Your task to perform on an android device: check storage Image 0: 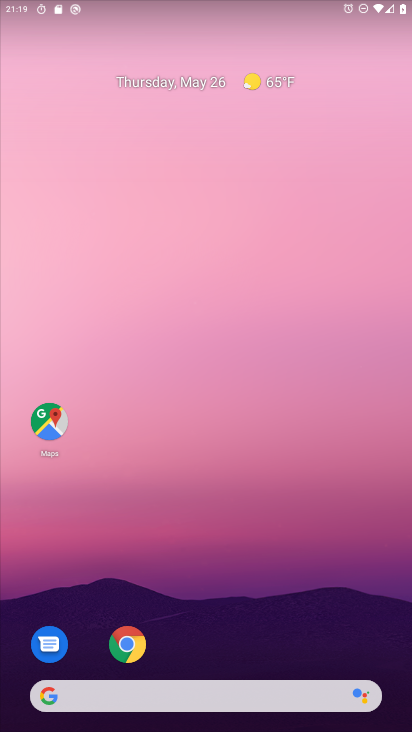
Step 0: drag from (154, 381) to (159, 139)
Your task to perform on an android device: check storage Image 1: 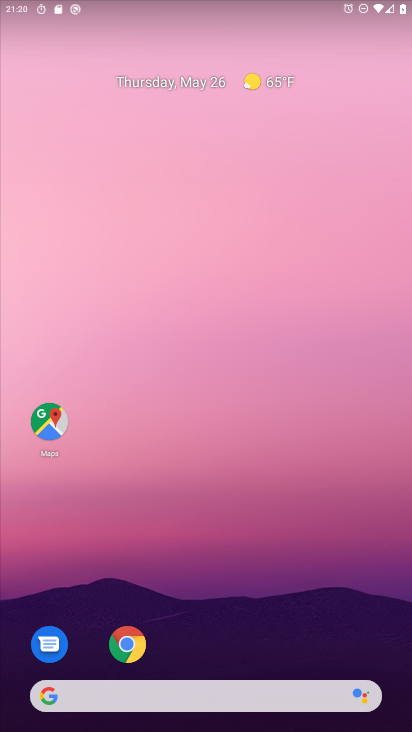
Step 1: drag from (197, 603) to (207, 273)
Your task to perform on an android device: check storage Image 2: 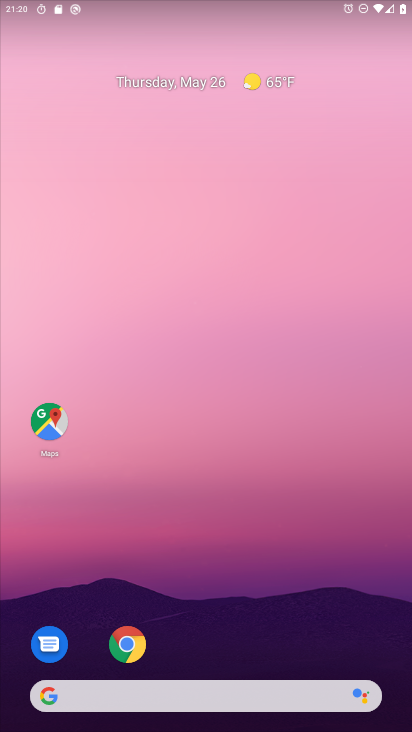
Step 2: drag from (217, 626) to (218, 126)
Your task to perform on an android device: check storage Image 3: 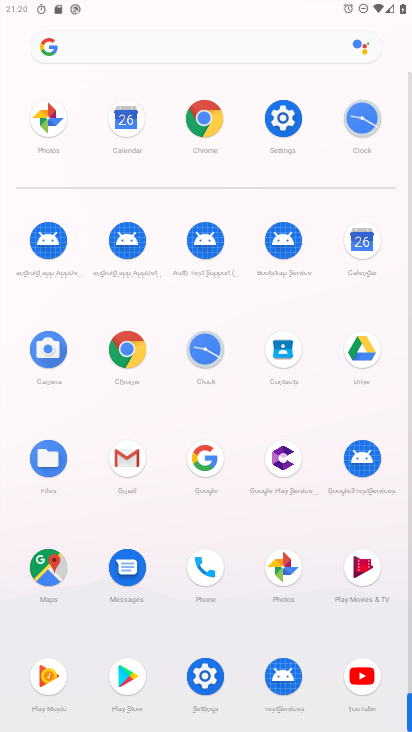
Step 3: drag from (237, 637) to (272, 178)
Your task to perform on an android device: check storage Image 4: 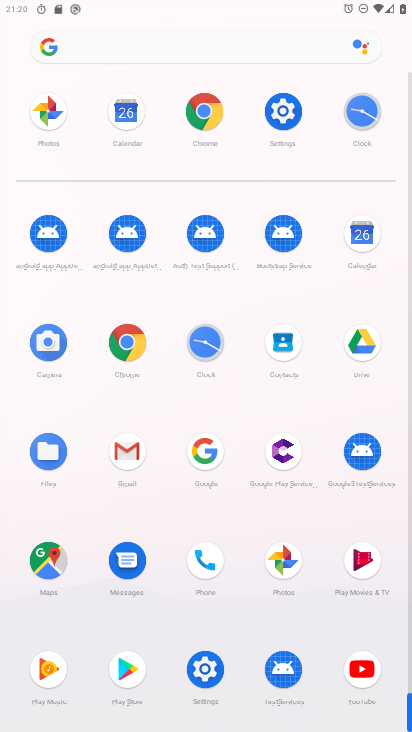
Step 4: drag from (242, 629) to (235, 288)
Your task to perform on an android device: check storage Image 5: 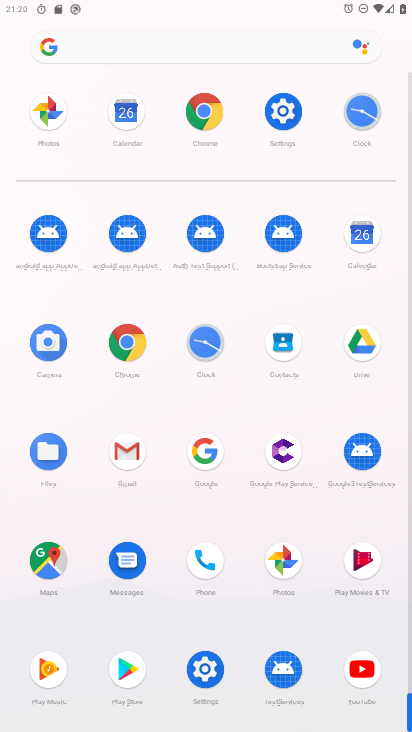
Step 5: click (276, 118)
Your task to perform on an android device: check storage Image 6: 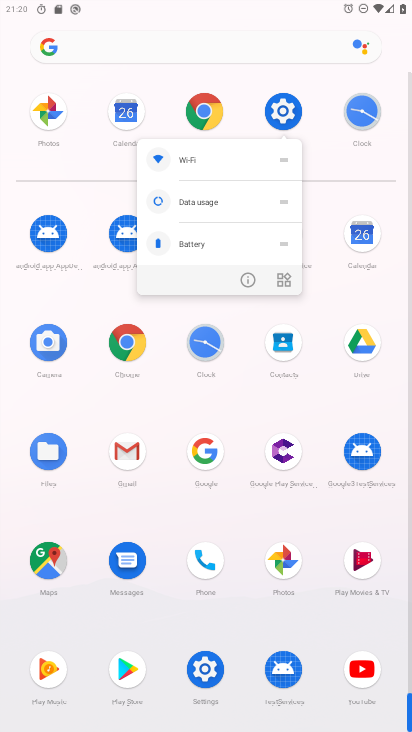
Step 6: click (247, 277)
Your task to perform on an android device: check storage Image 7: 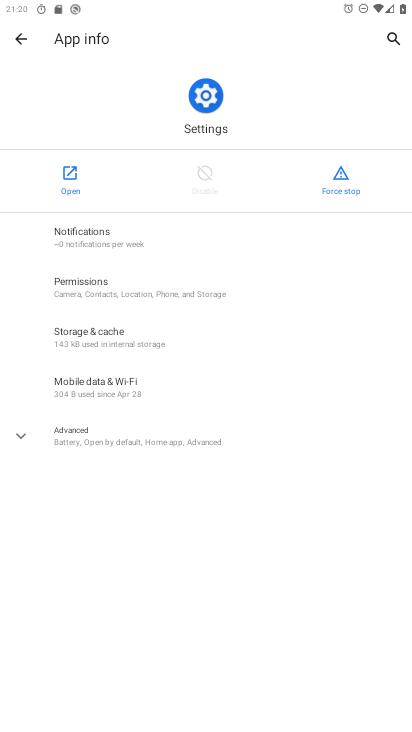
Step 7: click (45, 166)
Your task to perform on an android device: check storage Image 8: 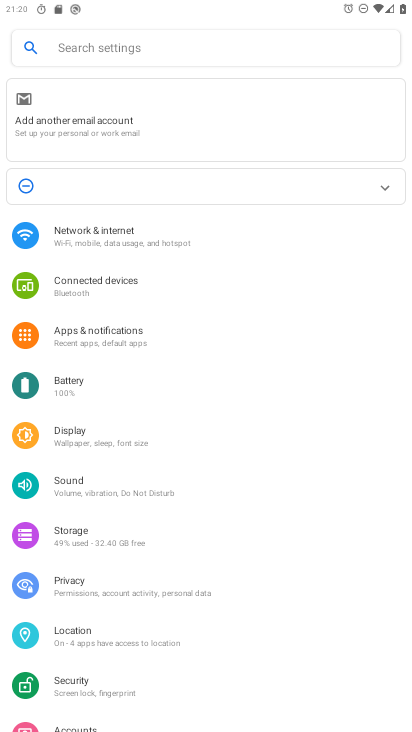
Step 8: drag from (129, 661) to (196, 167)
Your task to perform on an android device: check storage Image 9: 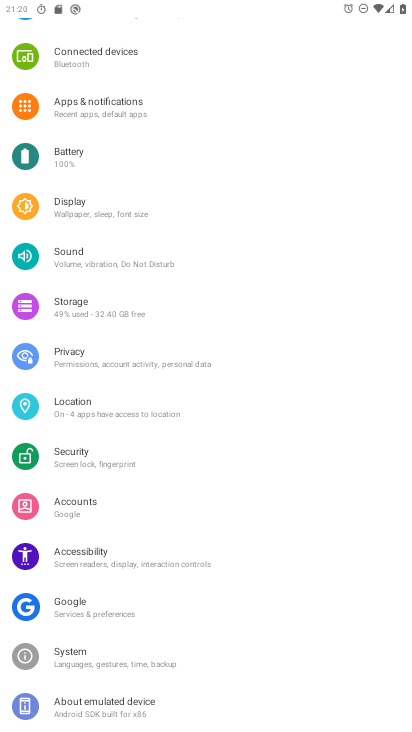
Step 9: click (150, 301)
Your task to perform on an android device: check storage Image 10: 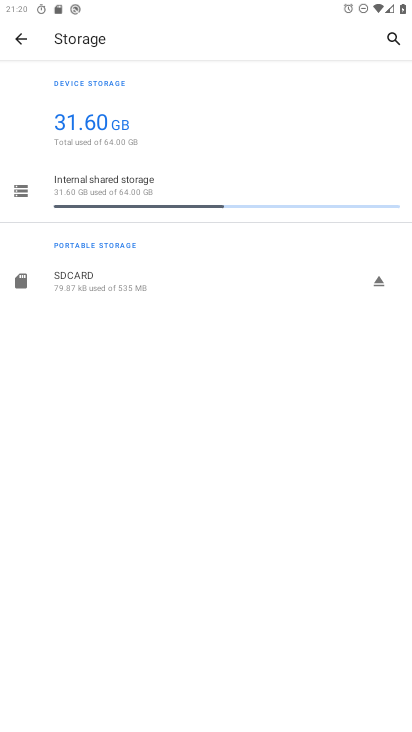
Step 10: task complete